Your task to perform on an android device: open chrome privacy settings Image 0: 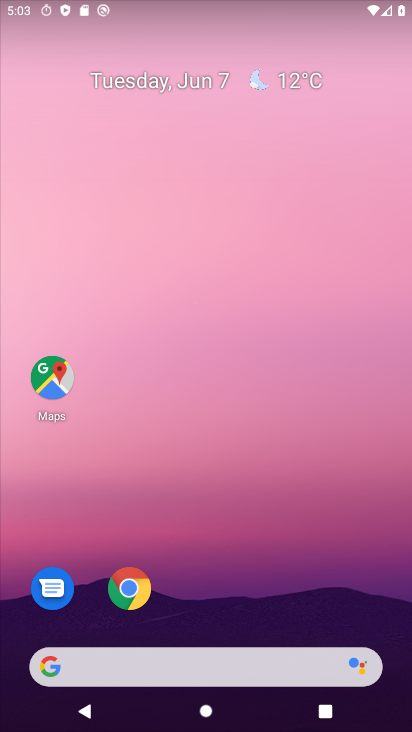
Step 0: click (127, 598)
Your task to perform on an android device: open chrome privacy settings Image 1: 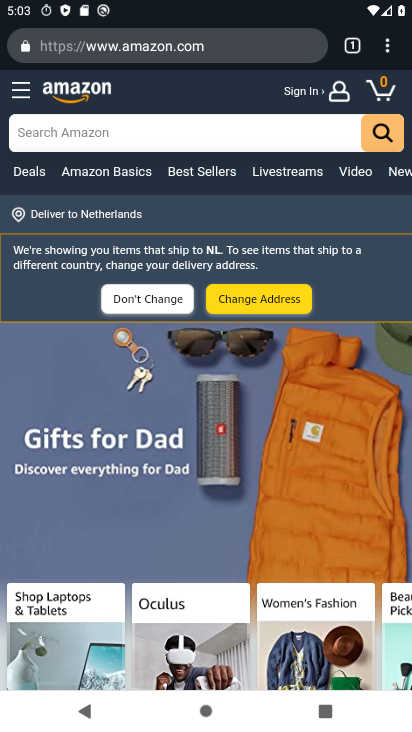
Step 1: click (386, 53)
Your task to perform on an android device: open chrome privacy settings Image 2: 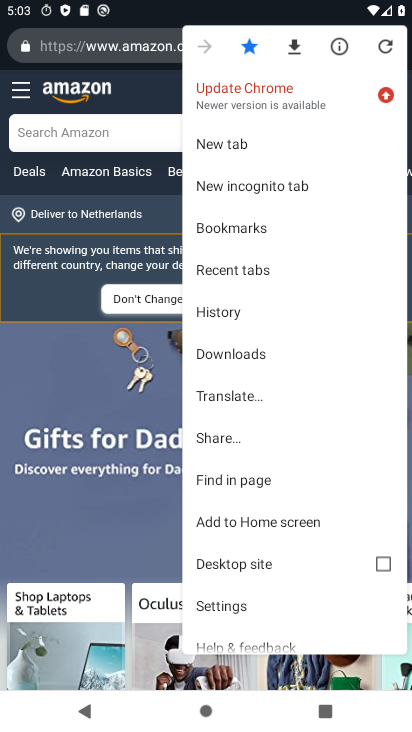
Step 2: click (227, 613)
Your task to perform on an android device: open chrome privacy settings Image 3: 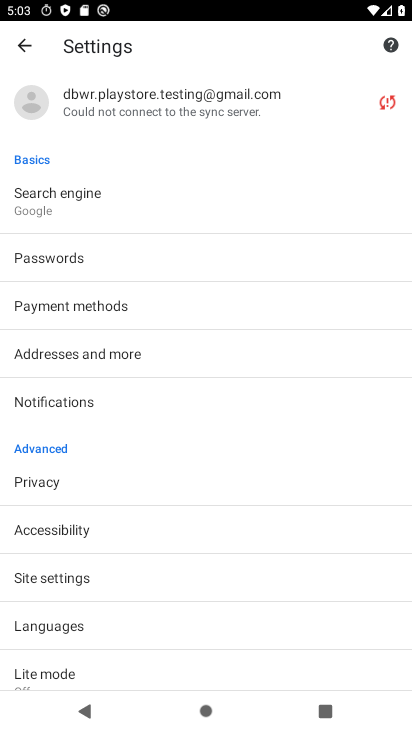
Step 3: click (50, 489)
Your task to perform on an android device: open chrome privacy settings Image 4: 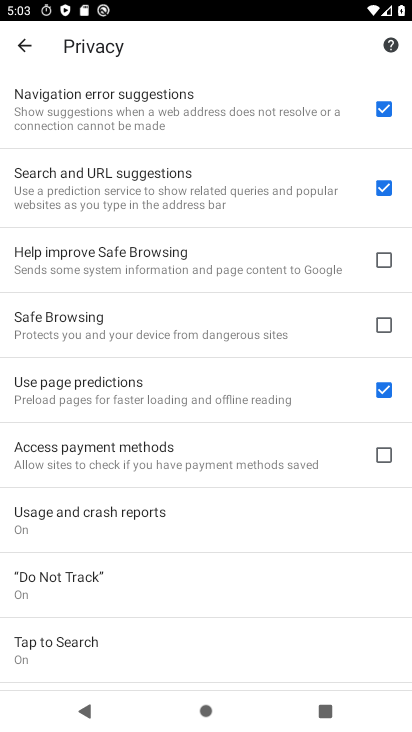
Step 4: task complete